Your task to perform on an android device: turn on bluetooth scan Image 0: 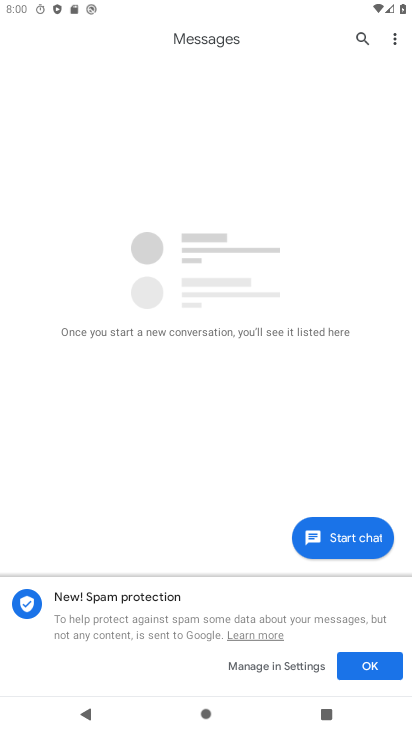
Step 0: press home button
Your task to perform on an android device: turn on bluetooth scan Image 1: 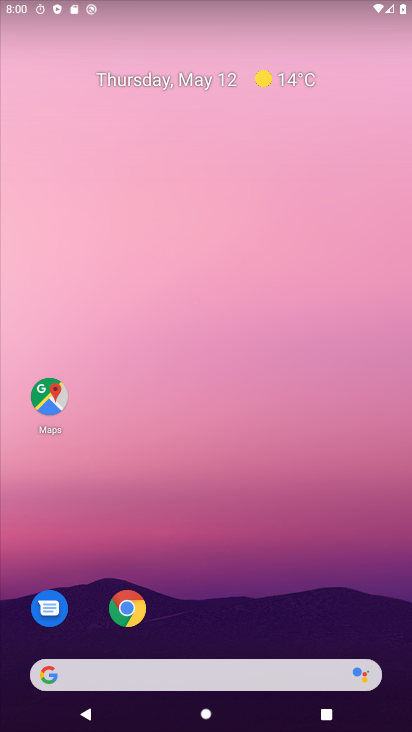
Step 1: drag from (229, 624) to (257, 15)
Your task to perform on an android device: turn on bluetooth scan Image 2: 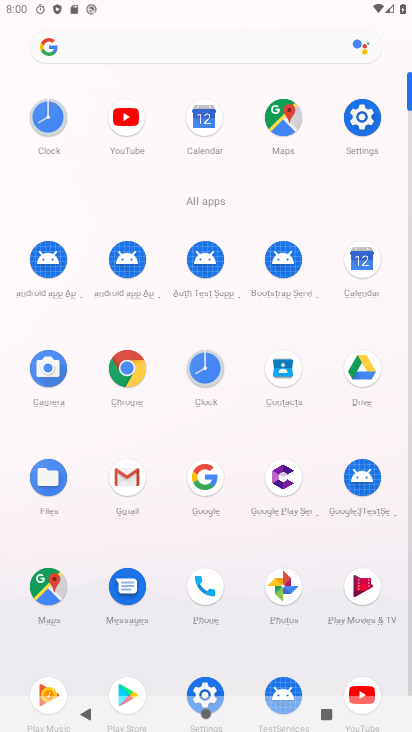
Step 2: click (369, 120)
Your task to perform on an android device: turn on bluetooth scan Image 3: 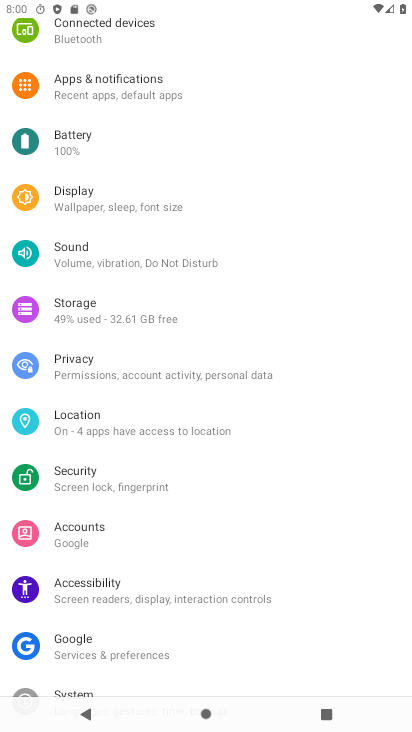
Step 3: click (86, 428)
Your task to perform on an android device: turn on bluetooth scan Image 4: 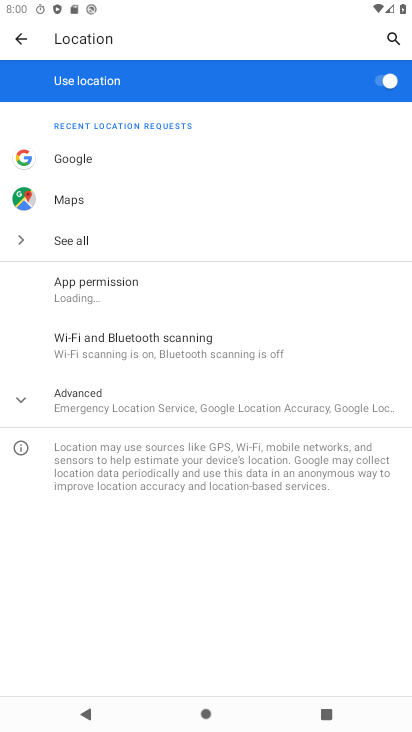
Step 4: click (98, 391)
Your task to perform on an android device: turn on bluetooth scan Image 5: 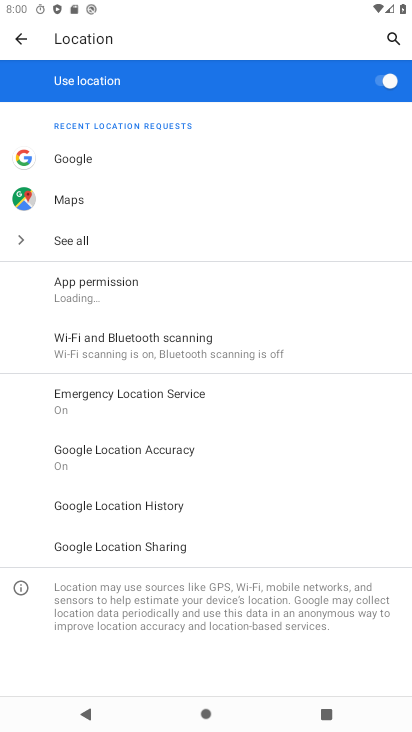
Step 5: click (112, 342)
Your task to perform on an android device: turn on bluetooth scan Image 6: 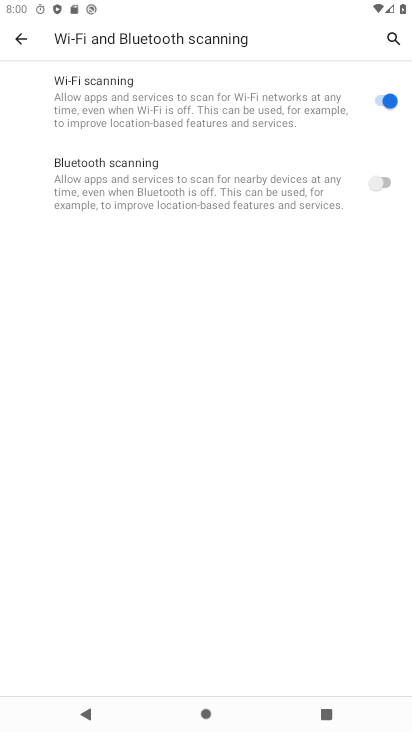
Step 6: click (389, 178)
Your task to perform on an android device: turn on bluetooth scan Image 7: 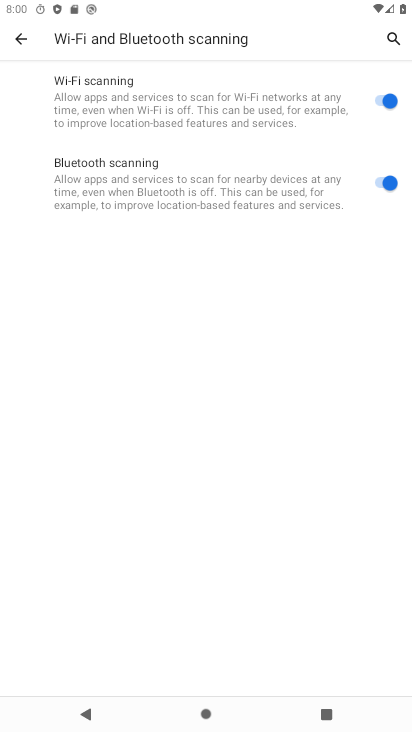
Step 7: task complete